Your task to perform on an android device: Open the calendar and show me this week's events? Image 0: 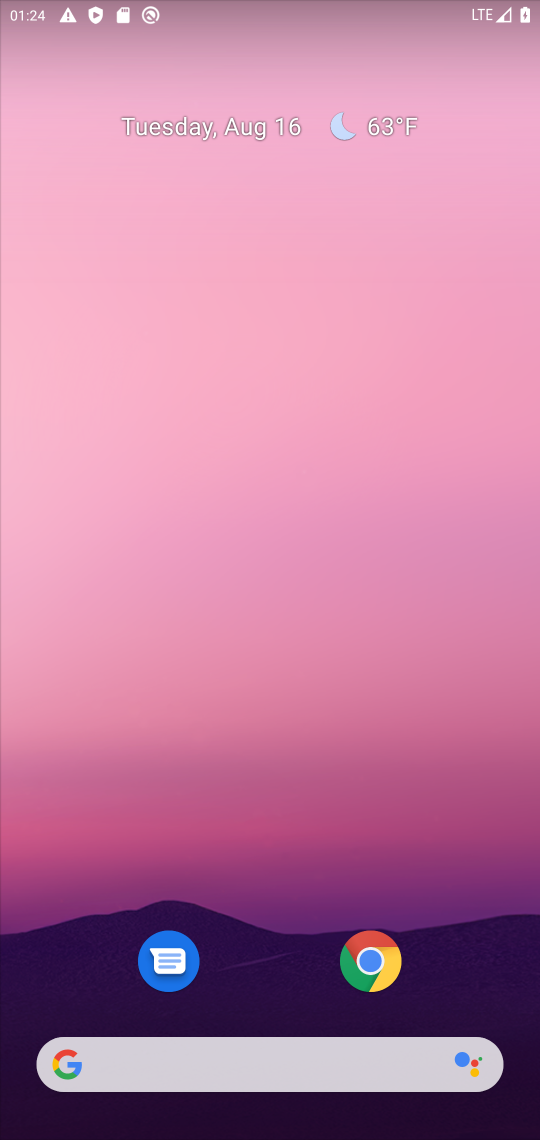
Step 0: click (257, 130)
Your task to perform on an android device: Open the calendar and show me this week's events? Image 1: 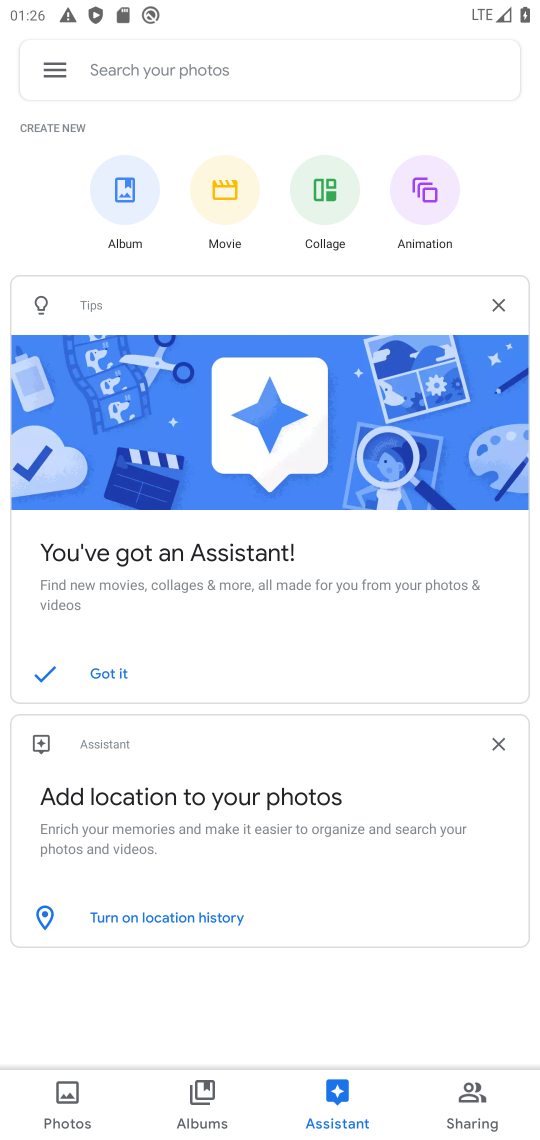
Step 1: click (50, 89)
Your task to perform on an android device: Open the calendar and show me this week's events? Image 2: 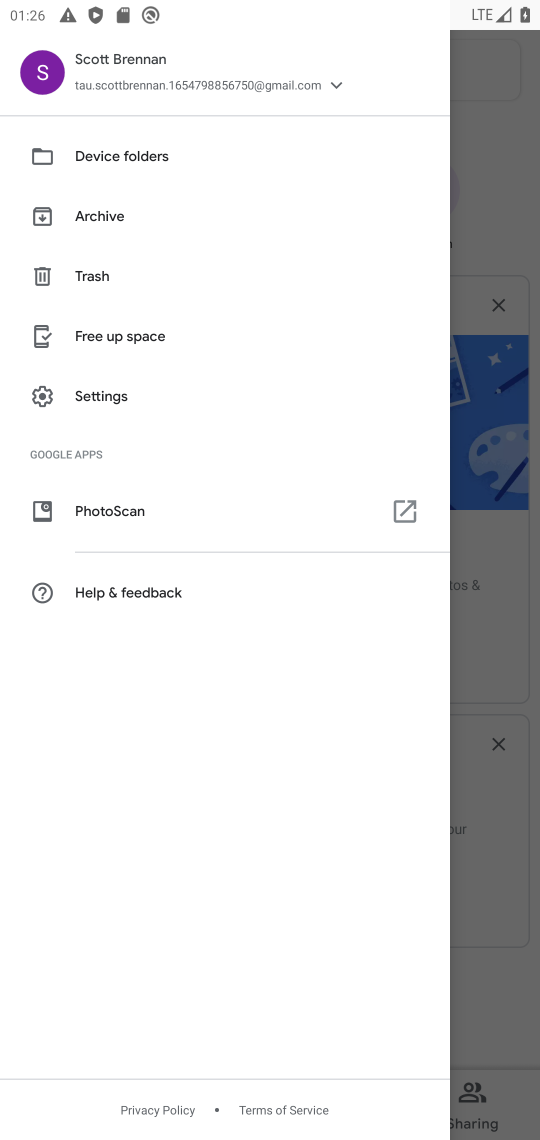
Step 2: click (509, 422)
Your task to perform on an android device: Open the calendar and show me this week's events? Image 3: 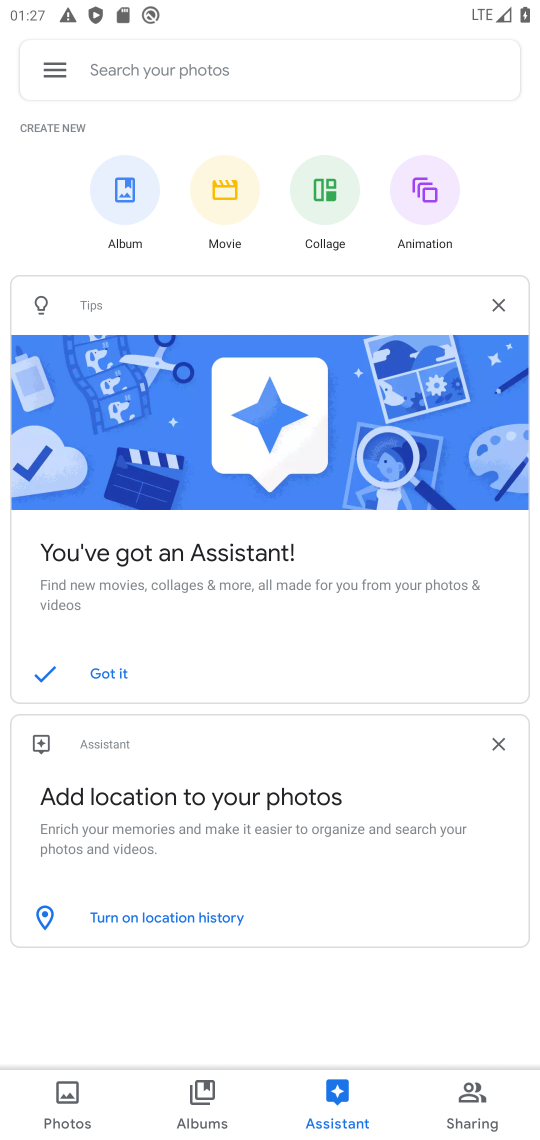
Step 3: press home button
Your task to perform on an android device: Open the calendar and show me this week's events? Image 4: 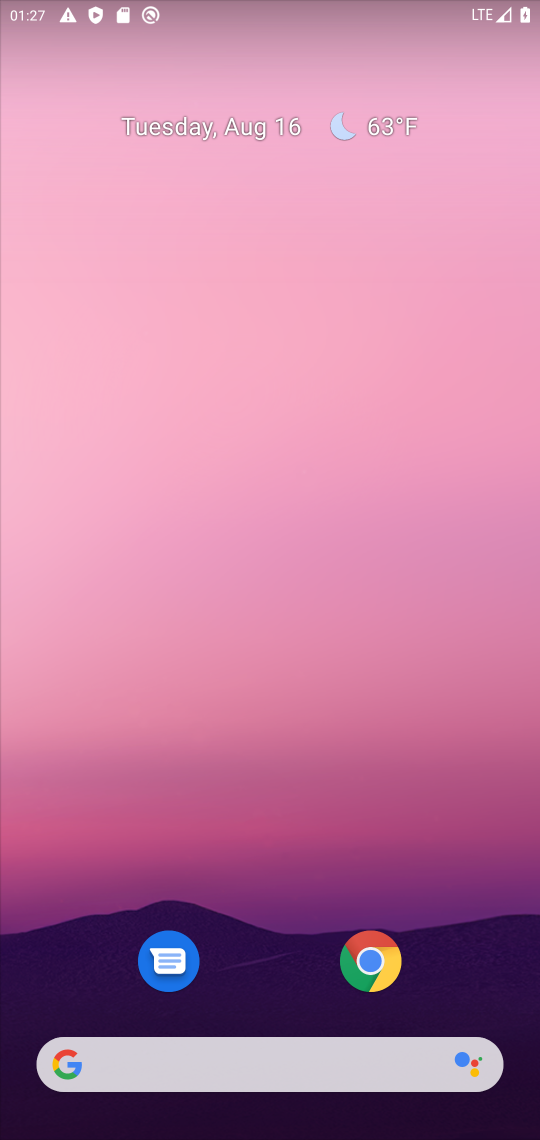
Step 4: drag from (247, 952) to (367, 266)
Your task to perform on an android device: Open the calendar and show me this week's events? Image 5: 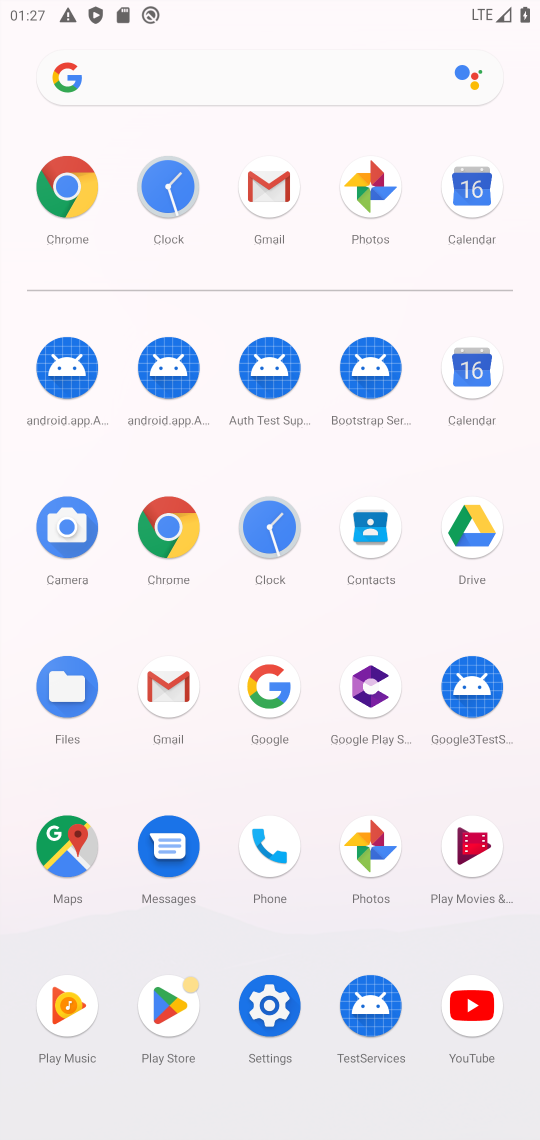
Step 5: click (480, 377)
Your task to perform on an android device: Open the calendar and show me this week's events? Image 6: 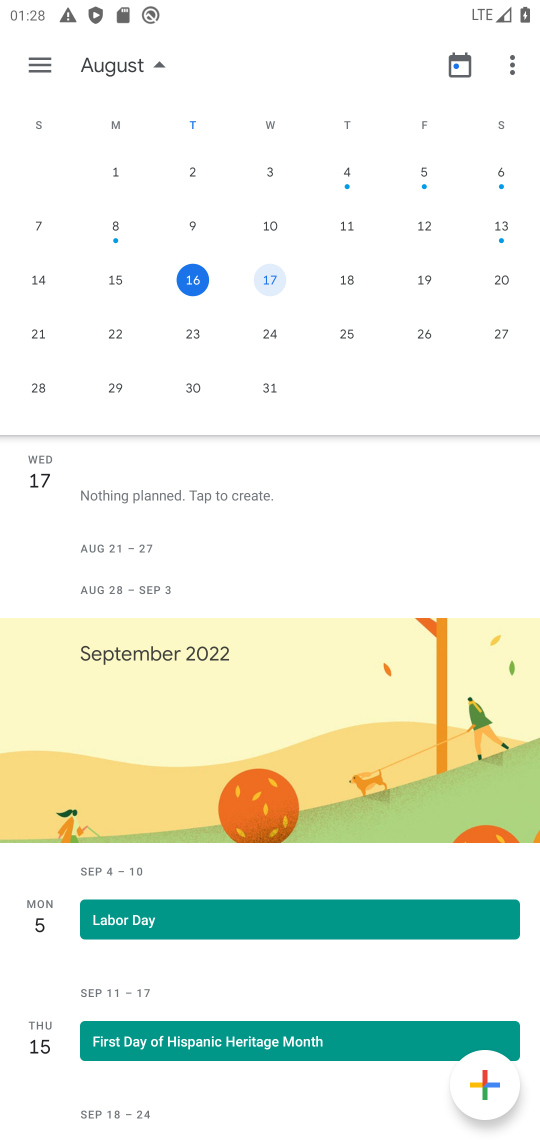
Step 6: task complete